Your task to perform on an android device: toggle wifi Image 0: 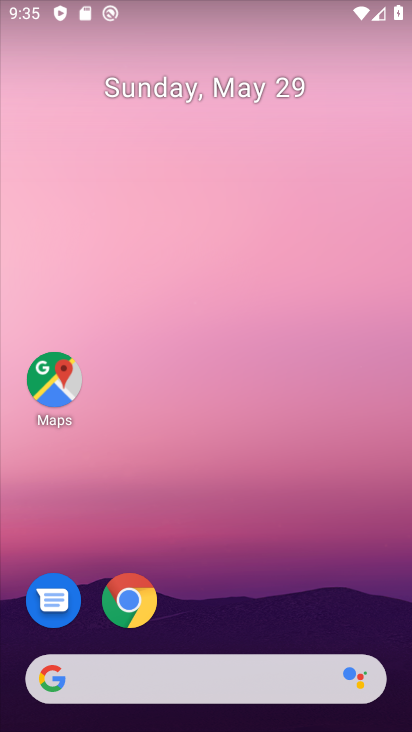
Step 0: drag from (152, 13) to (116, 415)
Your task to perform on an android device: toggle wifi Image 1: 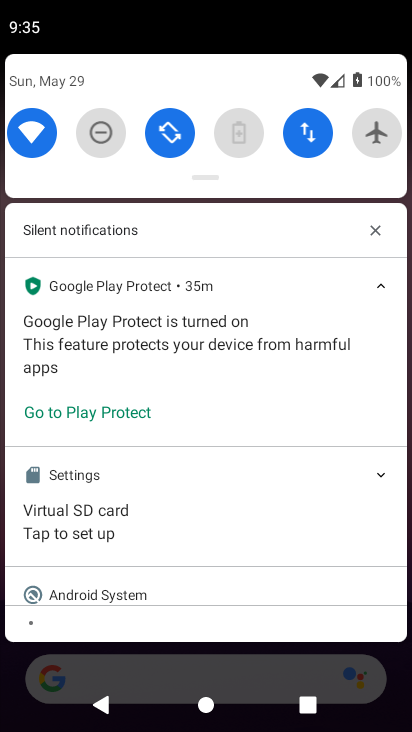
Step 1: click (31, 127)
Your task to perform on an android device: toggle wifi Image 2: 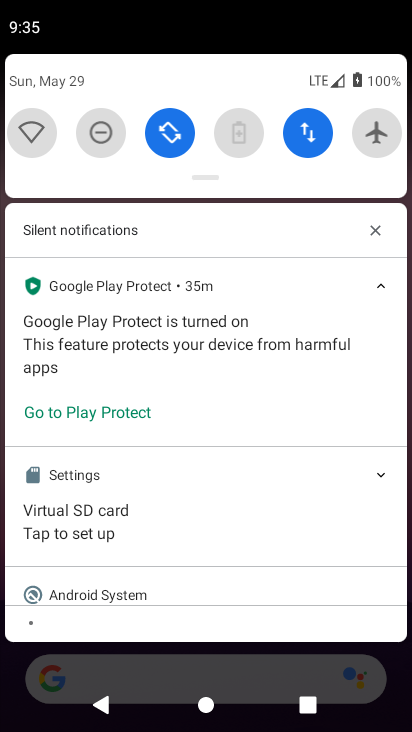
Step 2: task complete